Your task to perform on an android device: Open the calendar app, open the side menu, and click the "Day" option Image 0: 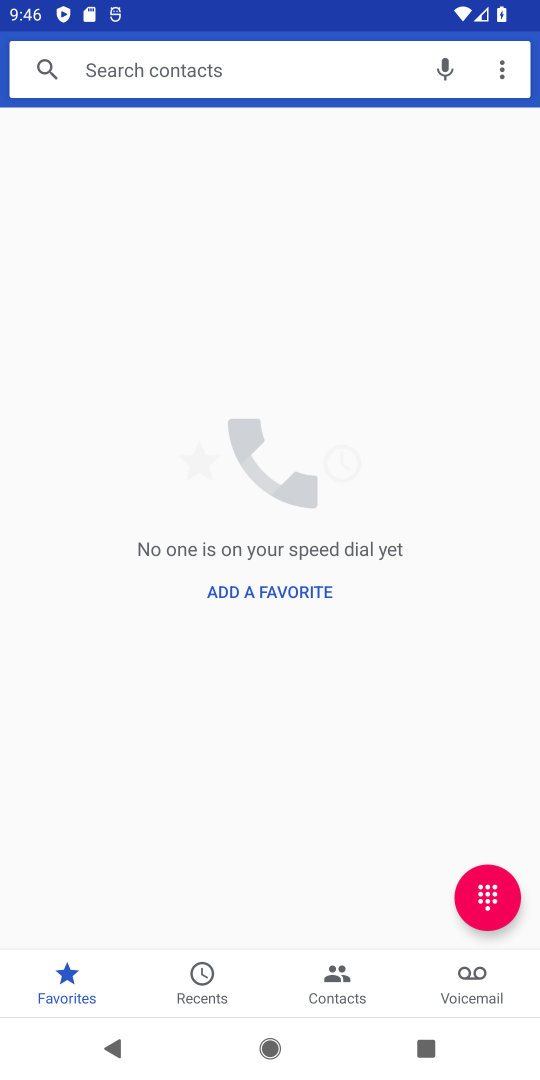
Step 0: press home button
Your task to perform on an android device: Open the calendar app, open the side menu, and click the "Day" option Image 1: 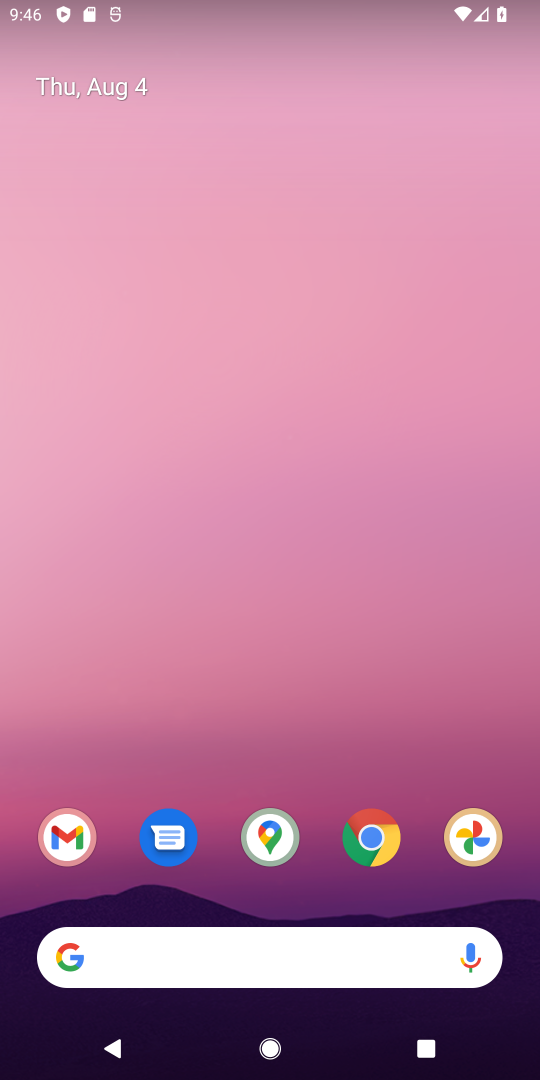
Step 1: drag from (466, 859) to (322, 261)
Your task to perform on an android device: Open the calendar app, open the side menu, and click the "Day" option Image 2: 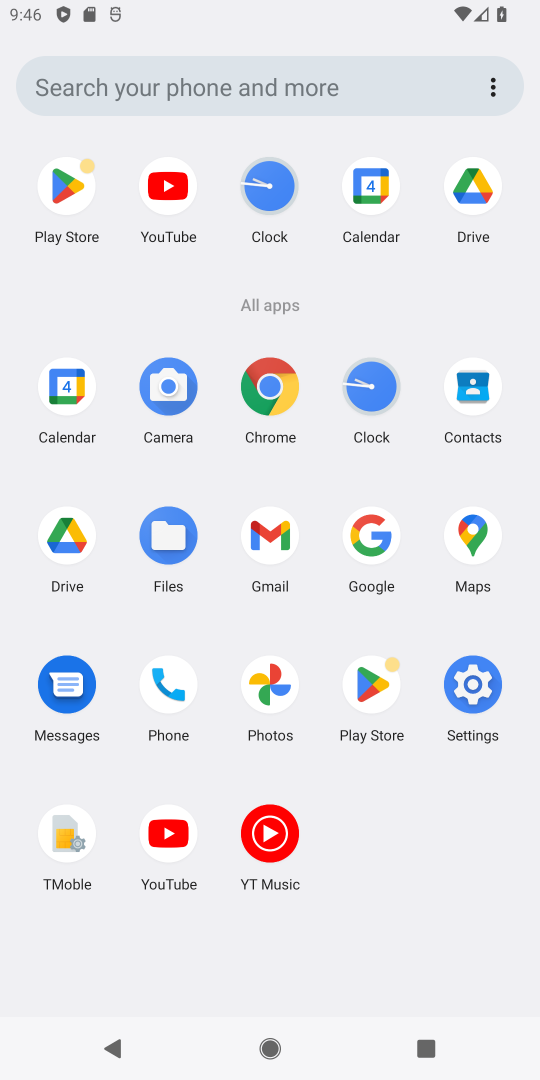
Step 2: click (71, 398)
Your task to perform on an android device: Open the calendar app, open the side menu, and click the "Day" option Image 3: 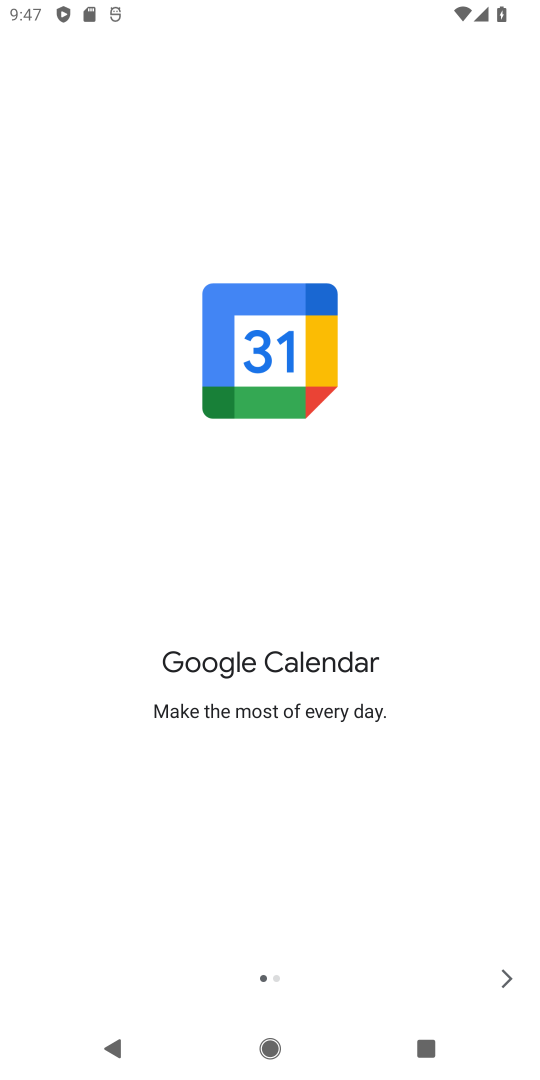
Step 3: click (522, 970)
Your task to perform on an android device: Open the calendar app, open the side menu, and click the "Day" option Image 4: 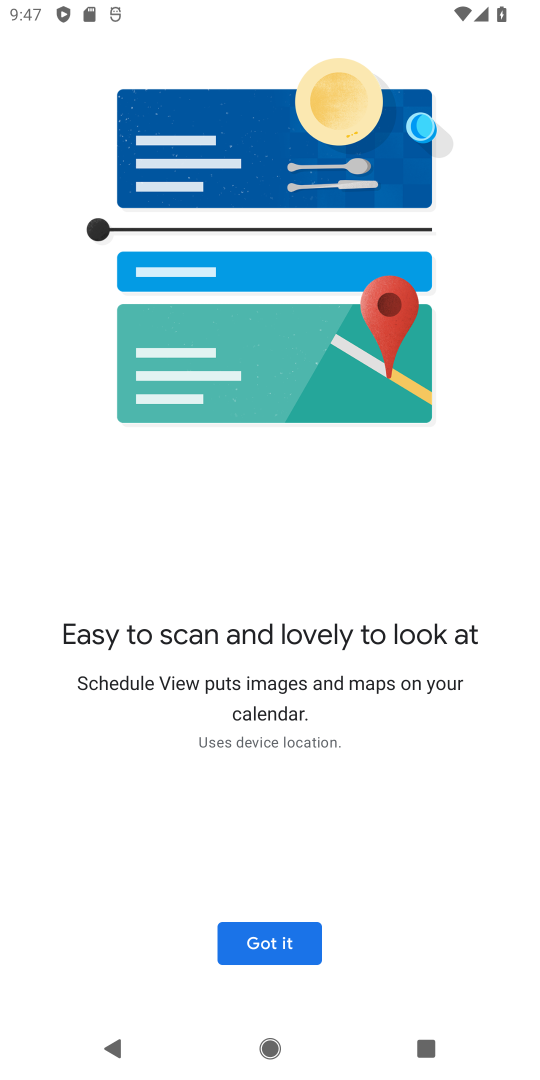
Step 4: click (279, 943)
Your task to perform on an android device: Open the calendar app, open the side menu, and click the "Day" option Image 5: 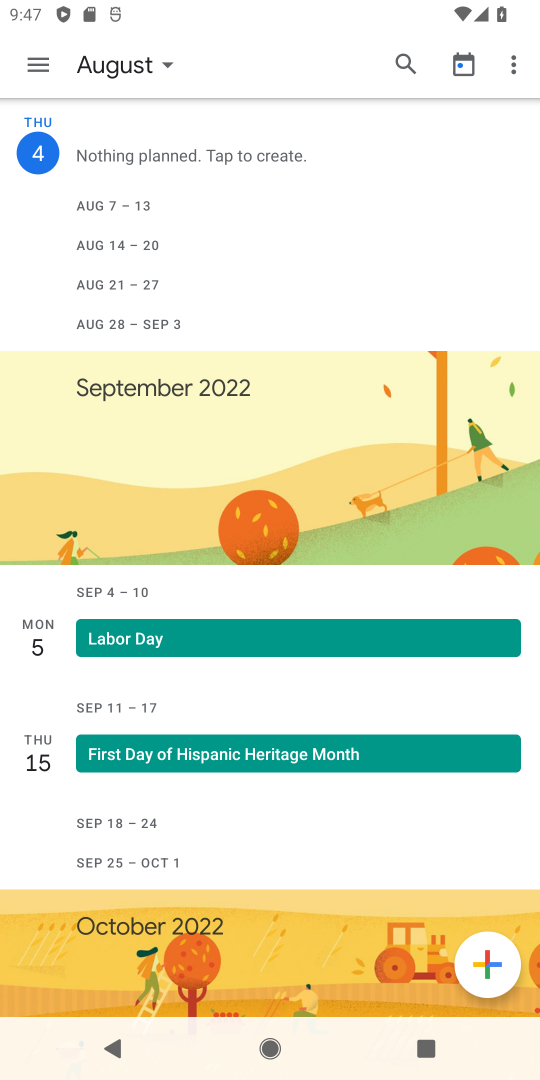
Step 5: click (36, 80)
Your task to perform on an android device: Open the calendar app, open the side menu, and click the "Day" option Image 6: 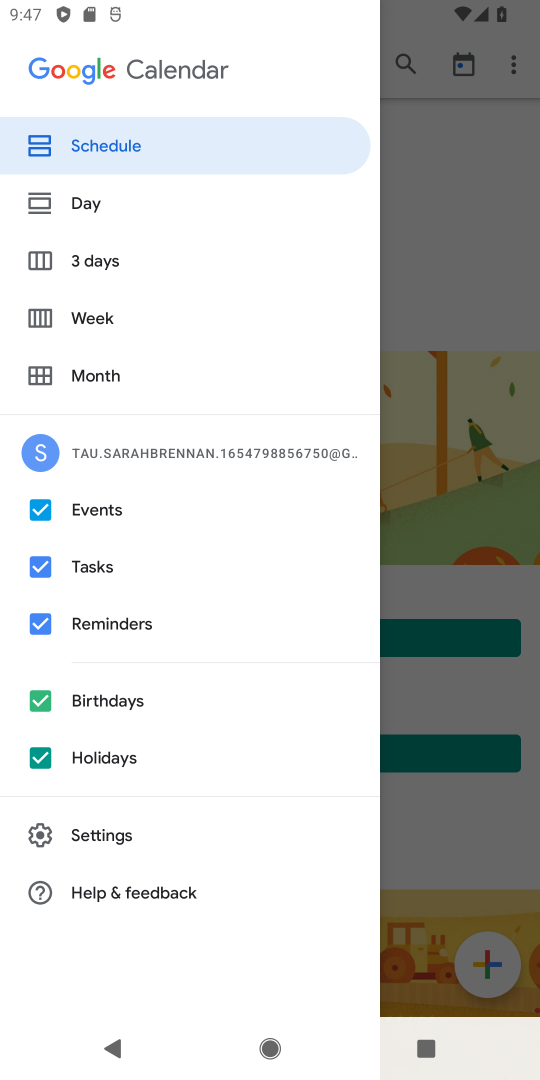
Step 6: click (106, 197)
Your task to perform on an android device: Open the calendar app, open the side menu, and click the "Day" option Image 7: 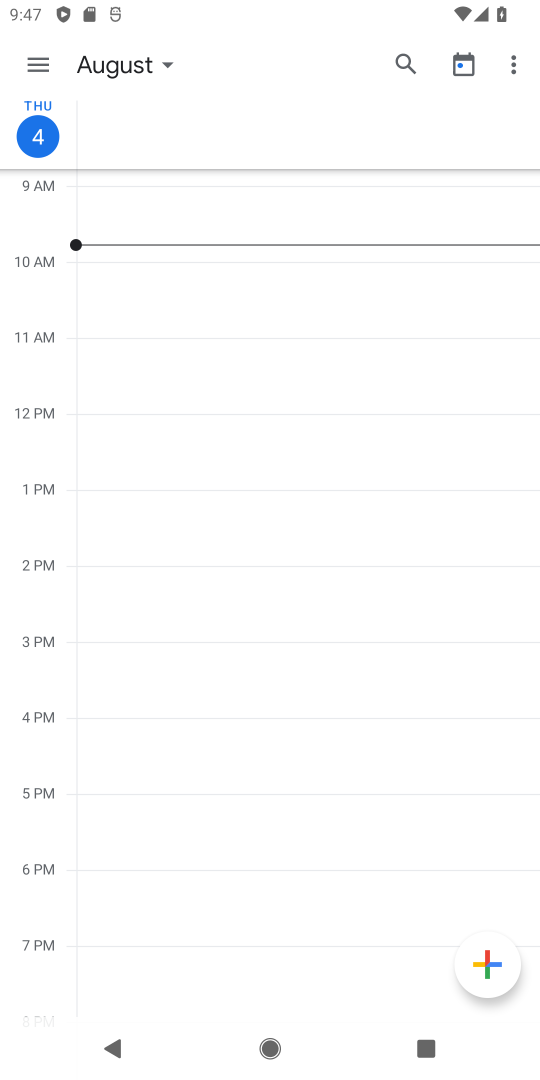
Step 7: task complete